Your task to perform on an android device: set an alarm Image 0: 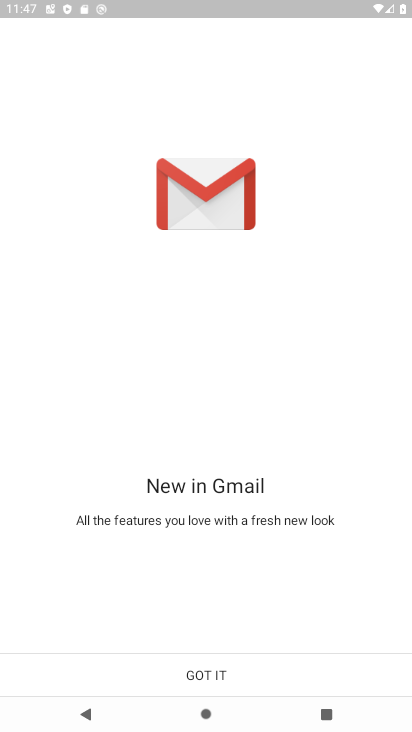
Step 0: press home button
Your task to perform on an android device: set an alarm Image 1: 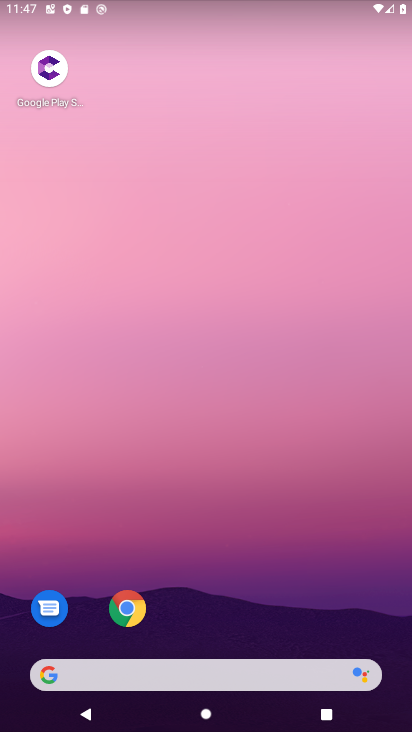
Step 1: drag from (212, 669) to (203, 328)
Your task to perform on an android device: set an alarm Image 2: 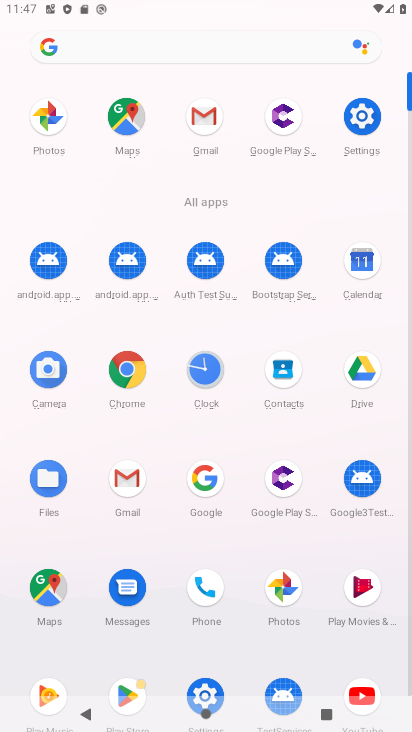
Step 2: click (205, 385)
Your task to perform on an android device: set an alarm Image 3: 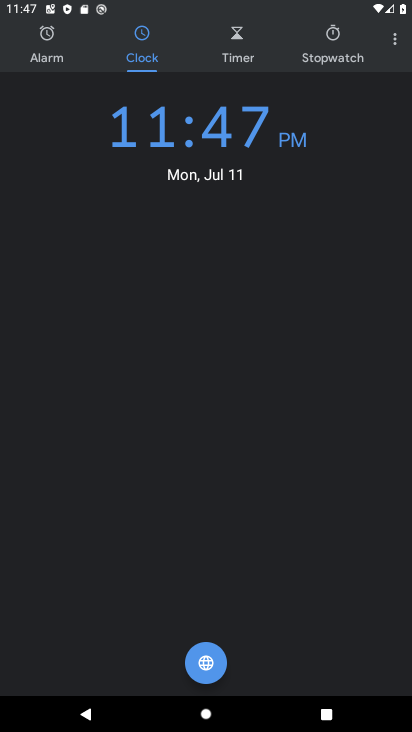
Step 3: click (66, 51)
Your task to perform on an android device: set an alarm Image 4: 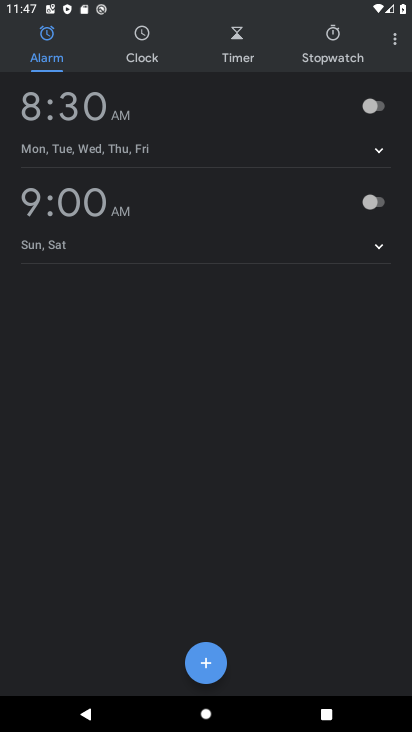
Step 4: click (208, 665)
Your task to perform on an android device: set an alarm Image 5: 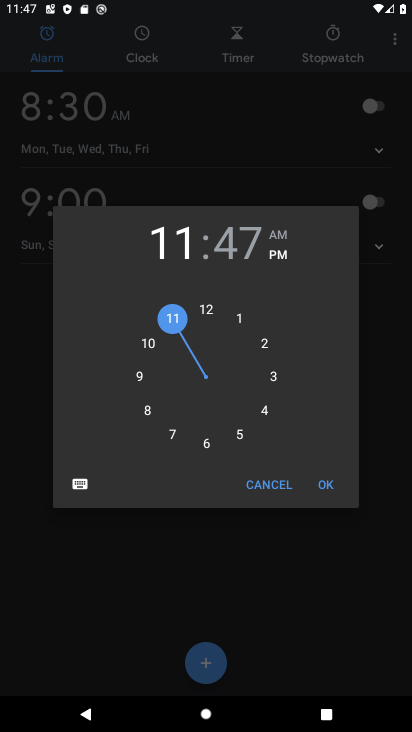
Step 5: click (170, 440)
Your task to perform on an android device: set an alarm Image 6: 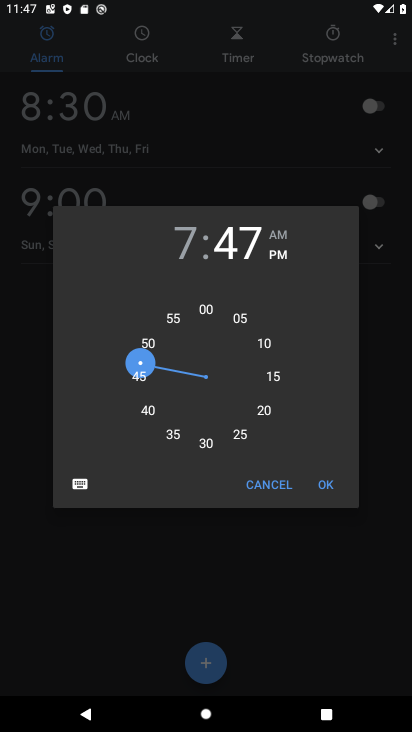
Step 6: click (206, 306)
Your task to perform on an android device: set an alarm Image 7: 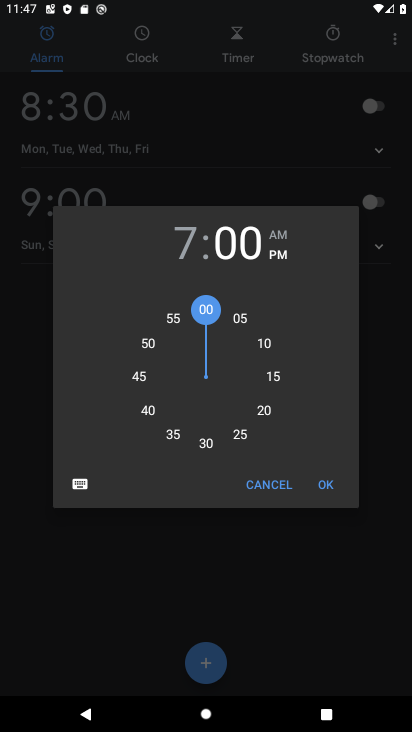
Step 7: click (330, 481)
Your task to perform on an android device: set an alarm Image 8: 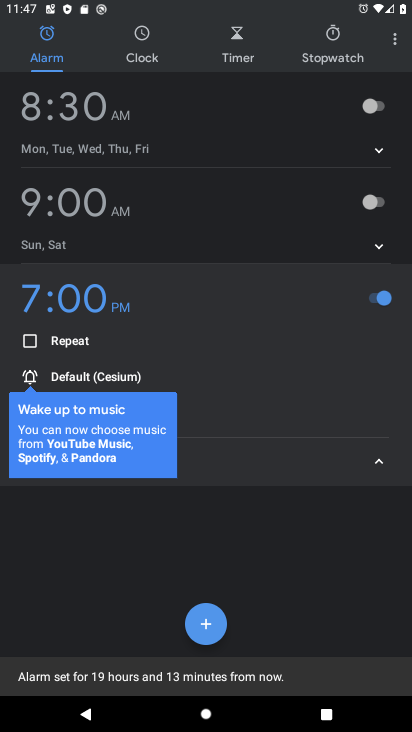
Step 8: task complete